Your task to perform on an android device: add a contact Image 0: 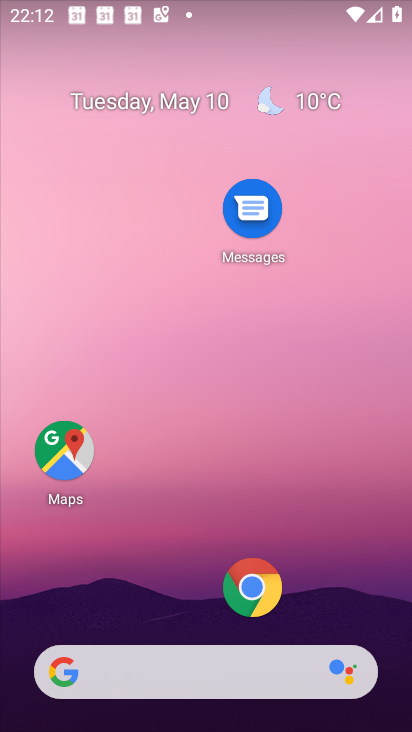
Step 0: drag from (170, 609) to (218, 0)
Your task to perform on an android device: add a contact Image 1: 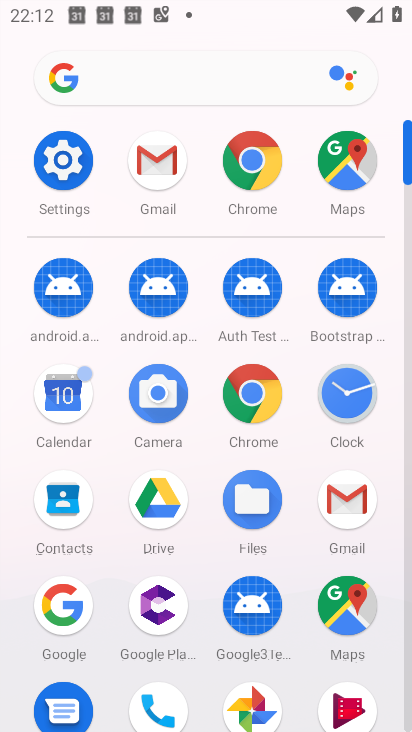
Step 1: click (63, 504)
Your task to perform on an android device: add a contact Image 2: 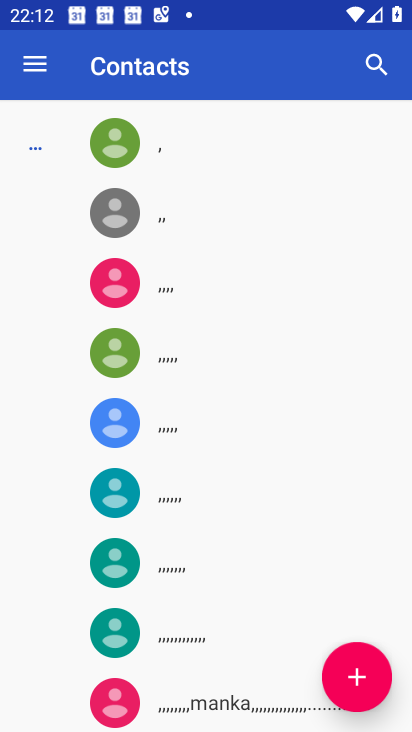
Step 2: click (344, 686)
Your task to perform on an android device: add a contact Image 3: 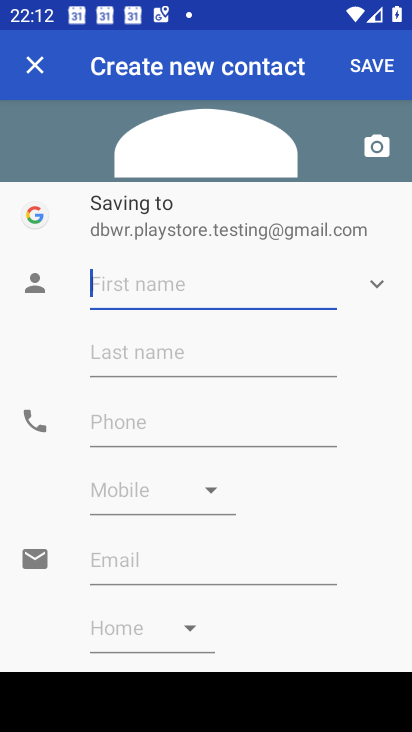
Step 3: type "blurred"
Your task to perform on an android device: add a contact Image 4: 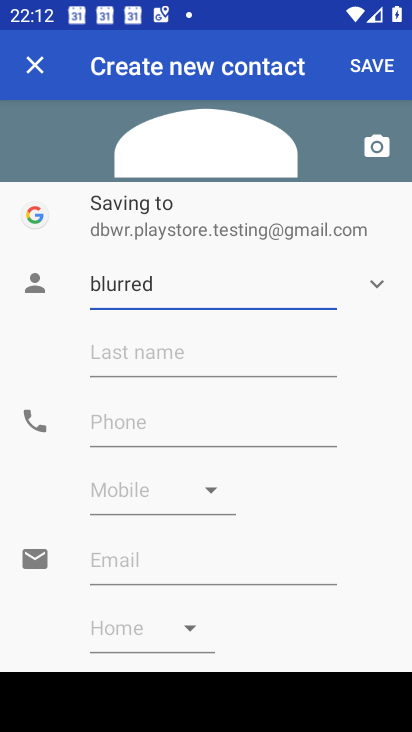
Step 4: click (360, 77)
Your task to perform on an android device: add a contact Image 5: 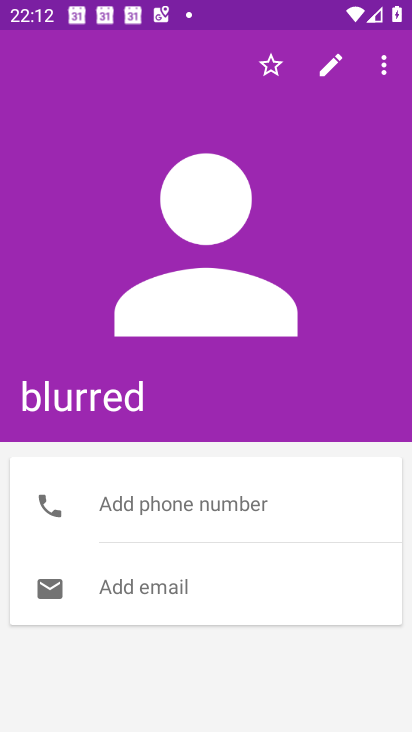
Step 5: task complete